Your task to perform on an android device: change notification settings in the gmail app Image 0: 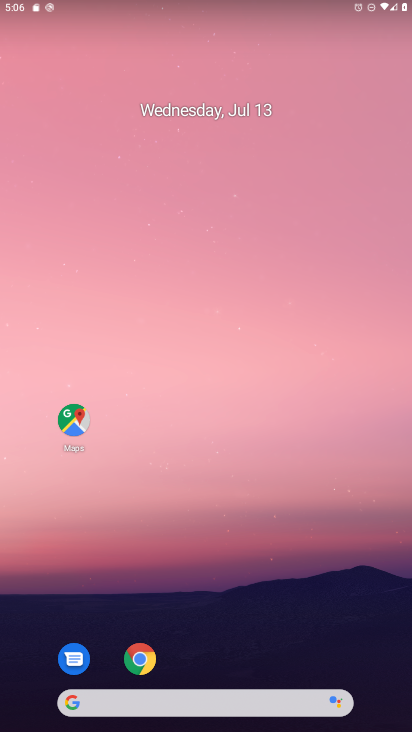
Step 0: drag from (338, 589) to (294, 128)
Your task to perform on an android device: change notification settings in the gmail app Image 1: 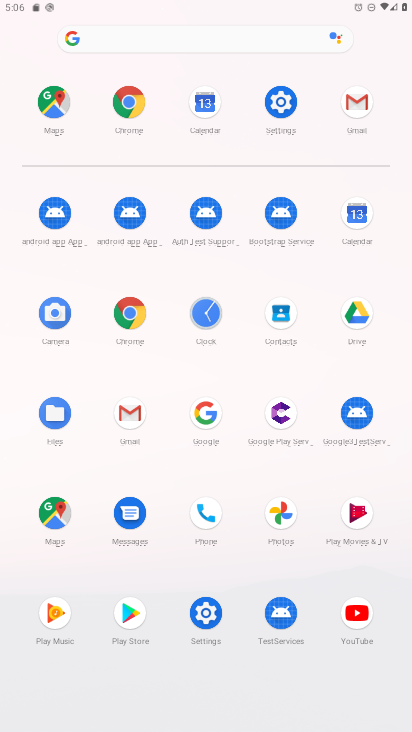
Step 1: click (362, 110)
Your task to perform on an android device: change notification settings in the gmail app Image 2: 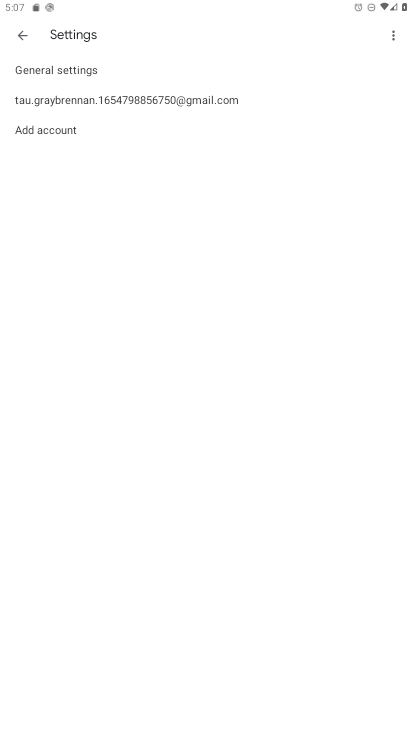
Step 2: click (110, 99)
Your task to perform on an android device: change notification settings in the gmail app Image 3: 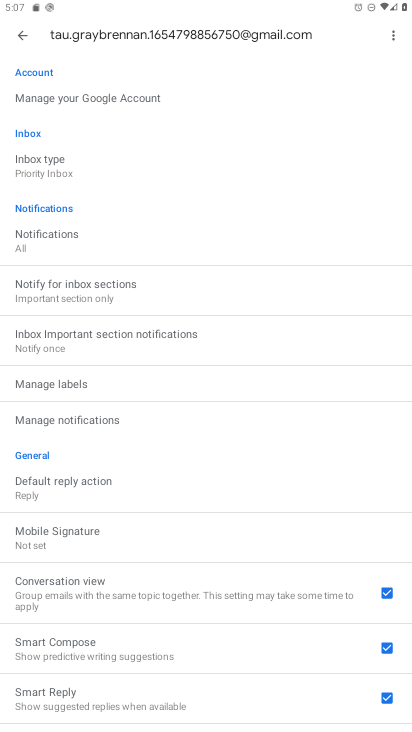
Step 3: click (93, 428)
Your task to perform on an android device: change notification settings in the gmail app Image 4: 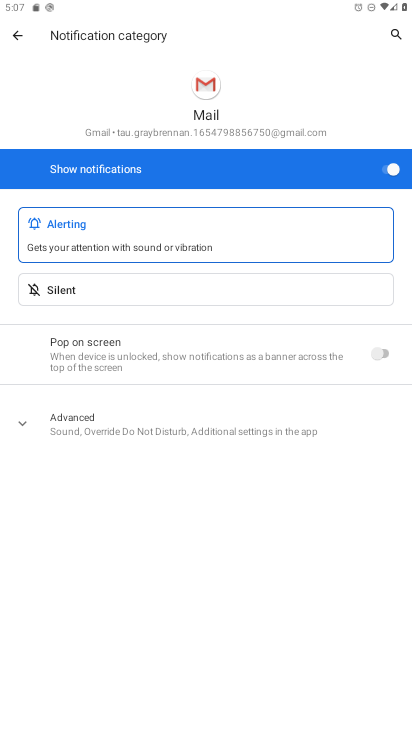
Step 4: click (393, 163)
Your task to perform on an android device: change notification settings in the gmail app Image 5: 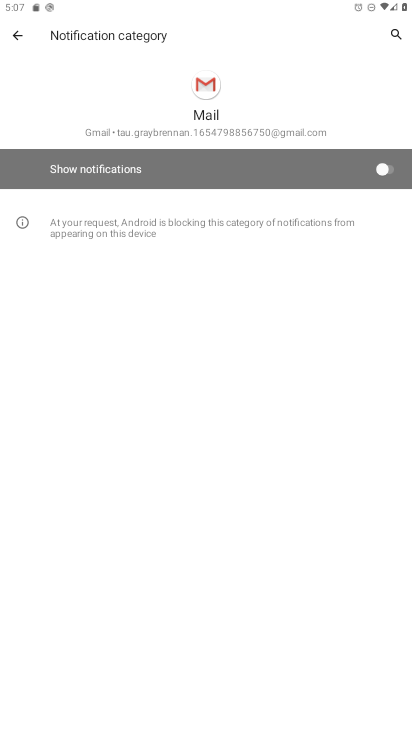
Step 5: task complete